Your task to perform on an android device: Open Chrome and go to settings Image 0: 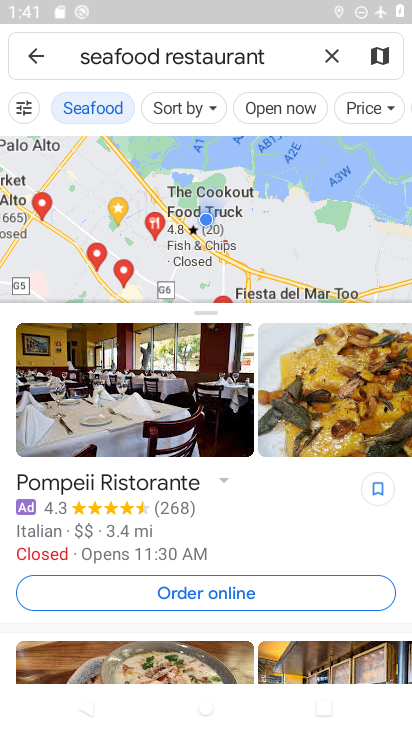
Step 0: press home button
Your task to perform on an android device: Open Chrome and go to settings Image 1: 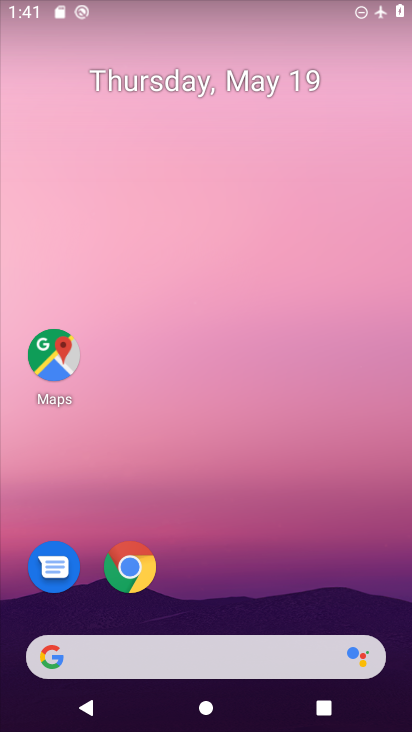
Step 1: click (128, 558)
Your task to perform on an android device: Open Chrome and go to settings Image 2: 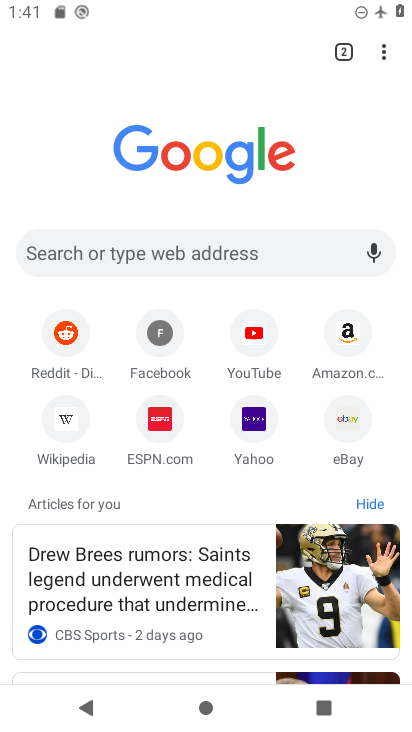
Step 2: click (382, 50)
Your task to perform on an android device: Open Chrome and go to settings Image 3: 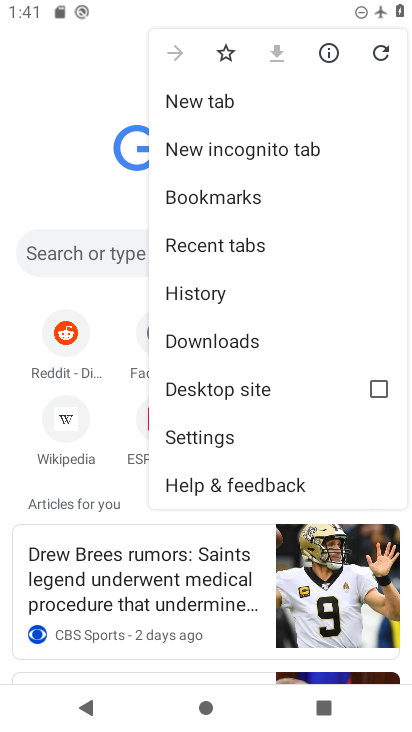
Step 3: click (232, 428)
Your task to perform on an android device: Open Chrome and go to settings Image 4: 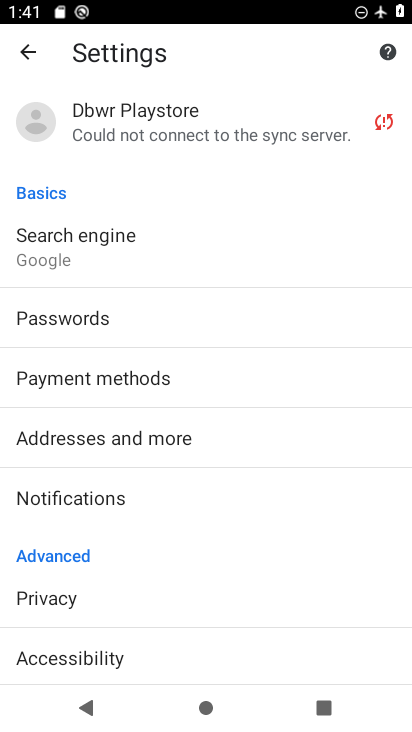
Step 4: task complete